Your task to perform on an android device: add a contact in the contacts app Image 0: 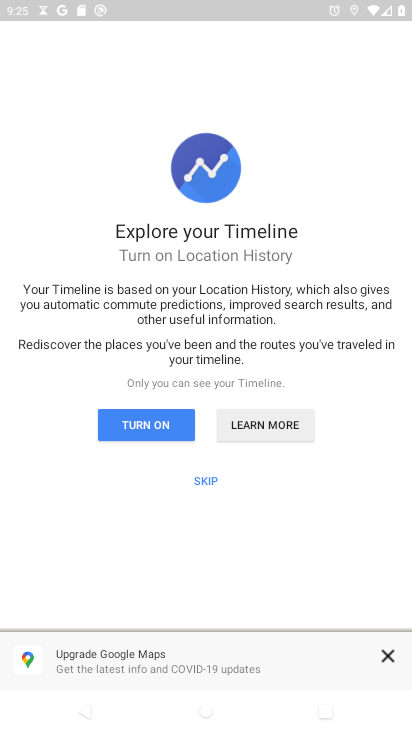
Step 0: click (145, 593)
Your task to perform on an android device: add a contact in the contacts app Image 1: 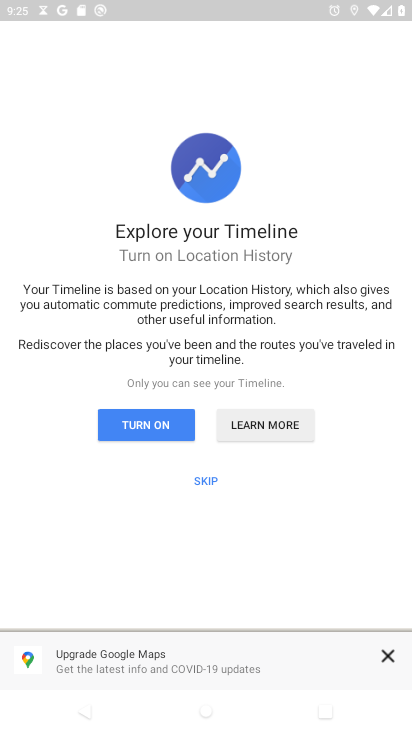
Step 1: press home button
Your task to perform on an android device: add a contact in the contacts app Image 2: 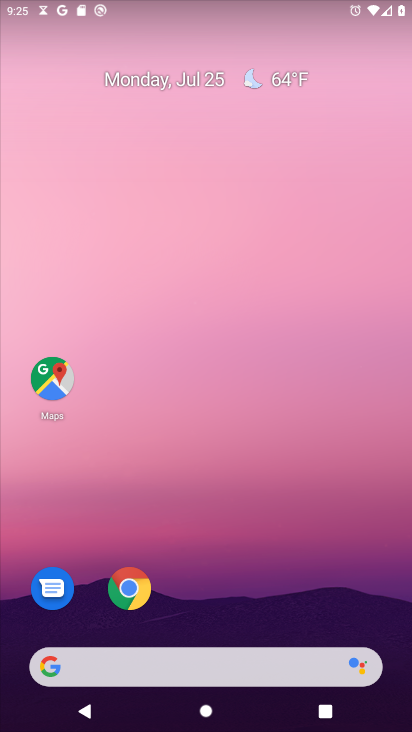
Step 2: drag from (186, 666) to (143, 325)
Your task to perform on an android device: add a contact in the contacts app Image 3: 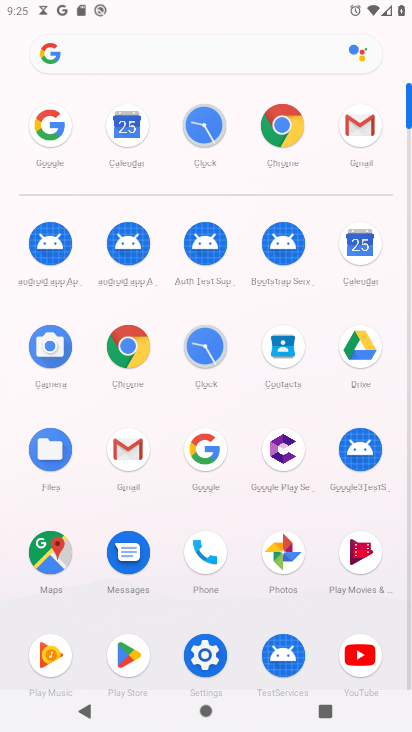
Step 3: click (302, 342)
Your task to perform on an android device: add a contact in the contacts app Image 4: 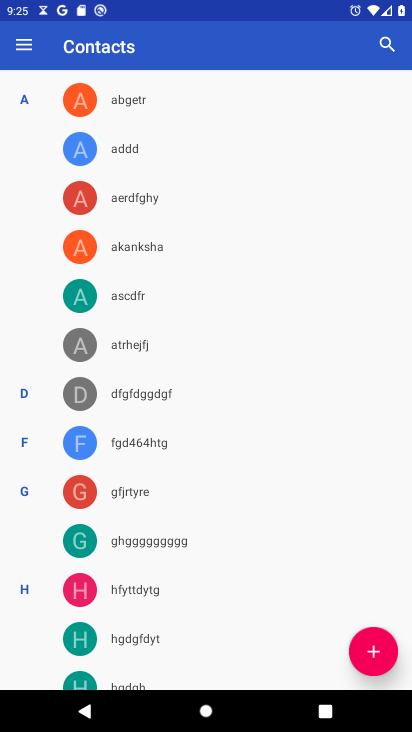
Step 4: click (384, 660)
Your task to perform on an android device: add a contact in the contacts app Image 5: 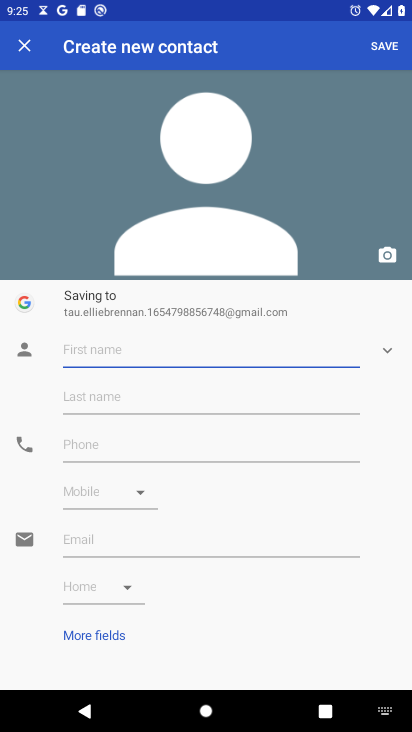
Step 5: type "vbbb"
Your task to perform on an android device: add a contact in the contacts app Image 6: 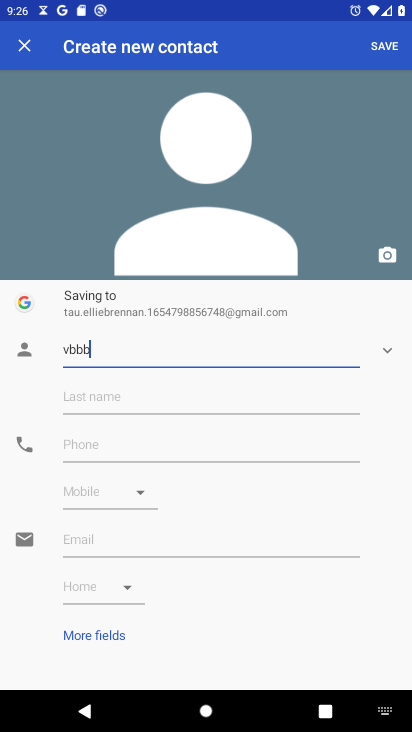
Step 6: click (169, 448)
Your task to perform on an android device: add a contact in the contacts app Image 7: 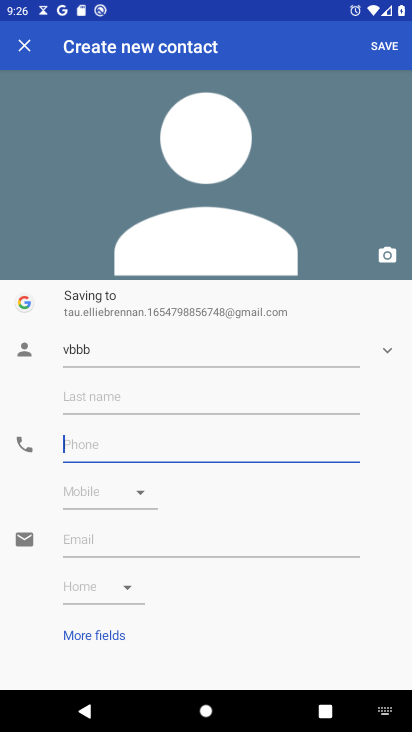
Step 7: type "878777687"
Your task to perform on an android device: add a contact in the contacts app Image 8: 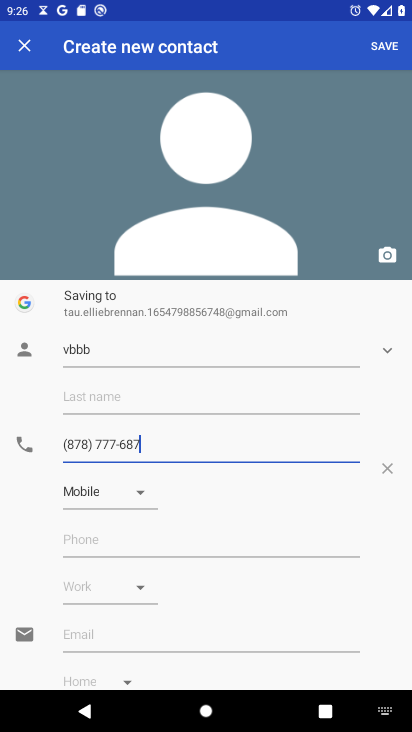
Step 8: click (373, 51)
Your task to perform on an android device: add a contact in the contacts app Image 9: 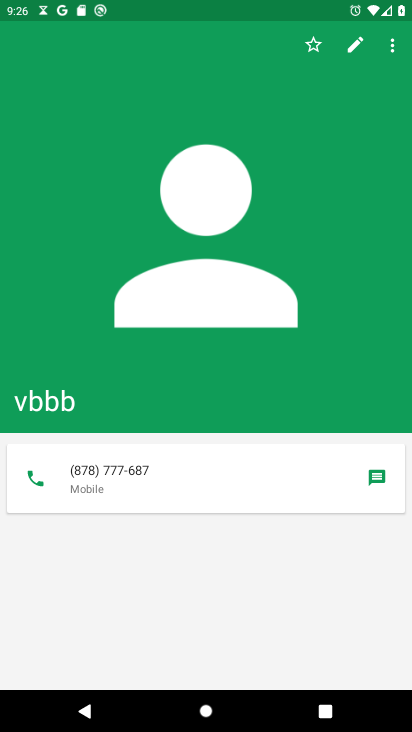
Step 9: task complete